Your task to perform on an android device: open app "Pluto TV - Live TV and Movies" (install if not already installed) Image 0: 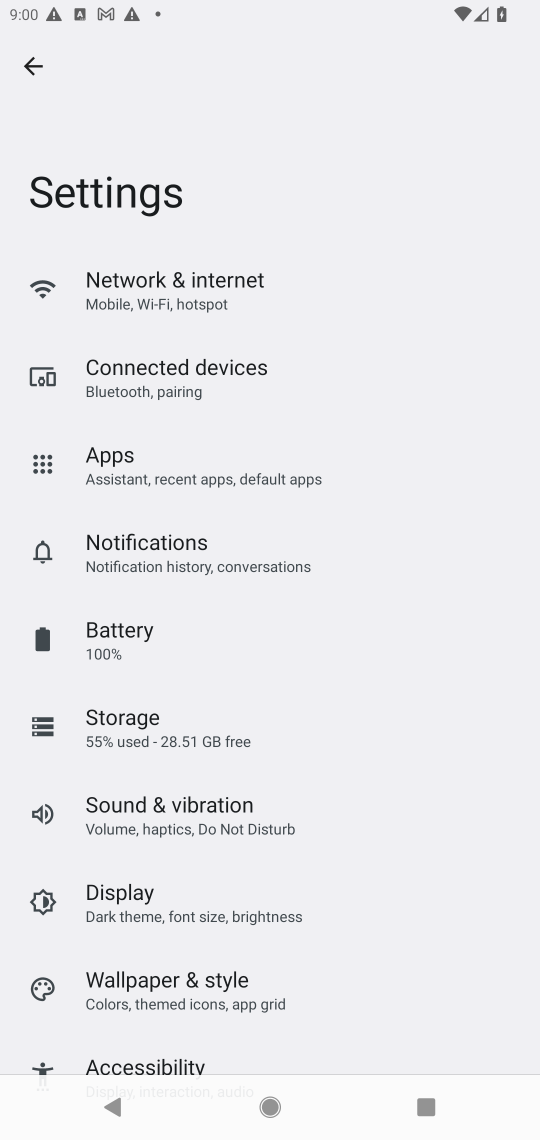
Step 0: press home button
Your task to perform on an android device: open app "Pluto TV - Live TV and Movies" (install if not already installed) Image 1: 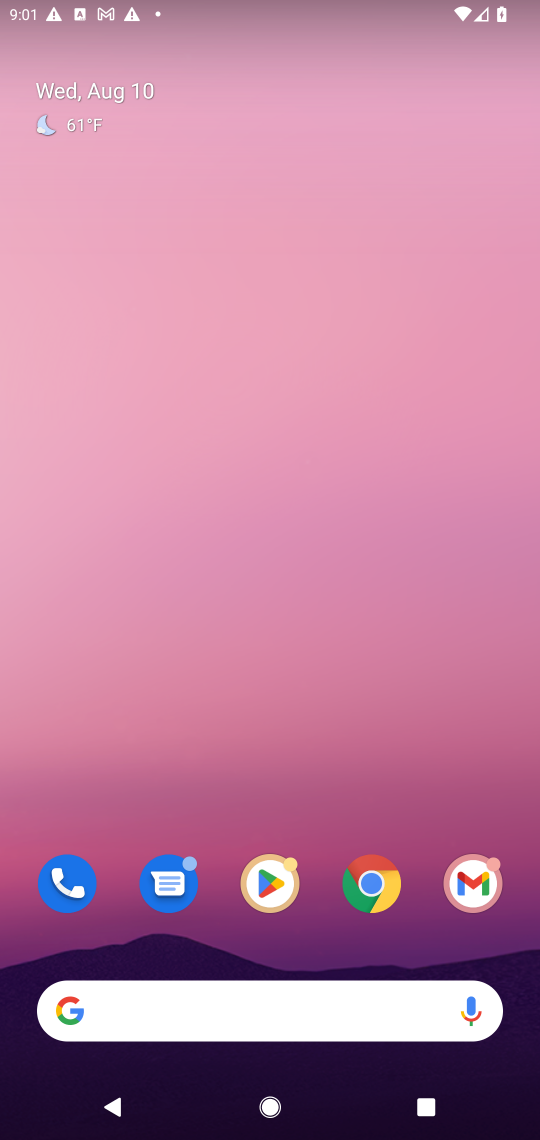
Step 1: click (257, 887)
Your task to perform on an android device: open app "Pluto TV - Live TV and Movies" (install if not already installed) Image 2: 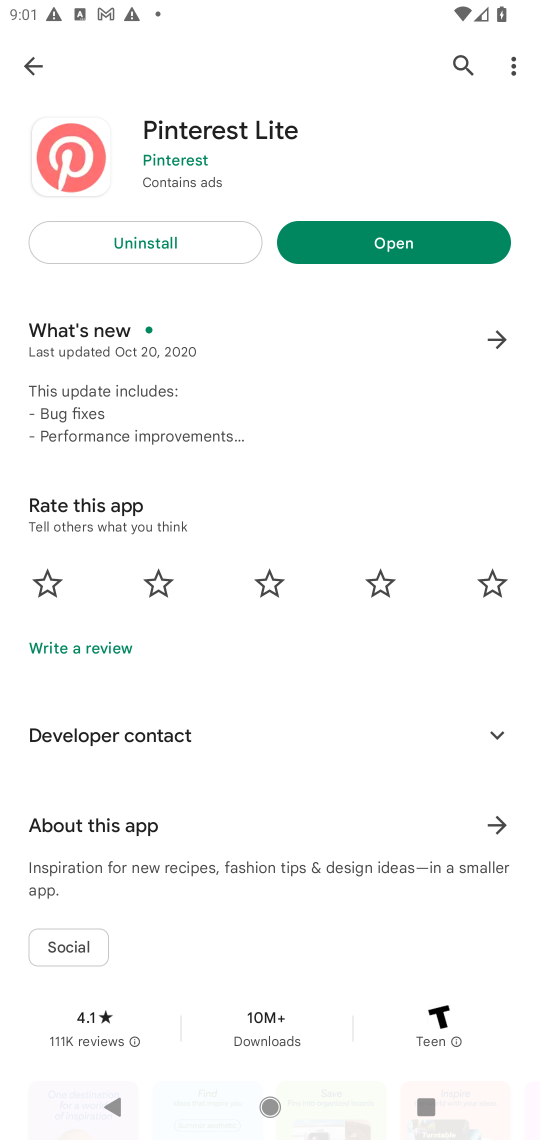
Step 2: click (451, 62)
Your task to perform on an android device: open app "Pluto TV - Live TV and Movies" (install if not already installed) Image 3: 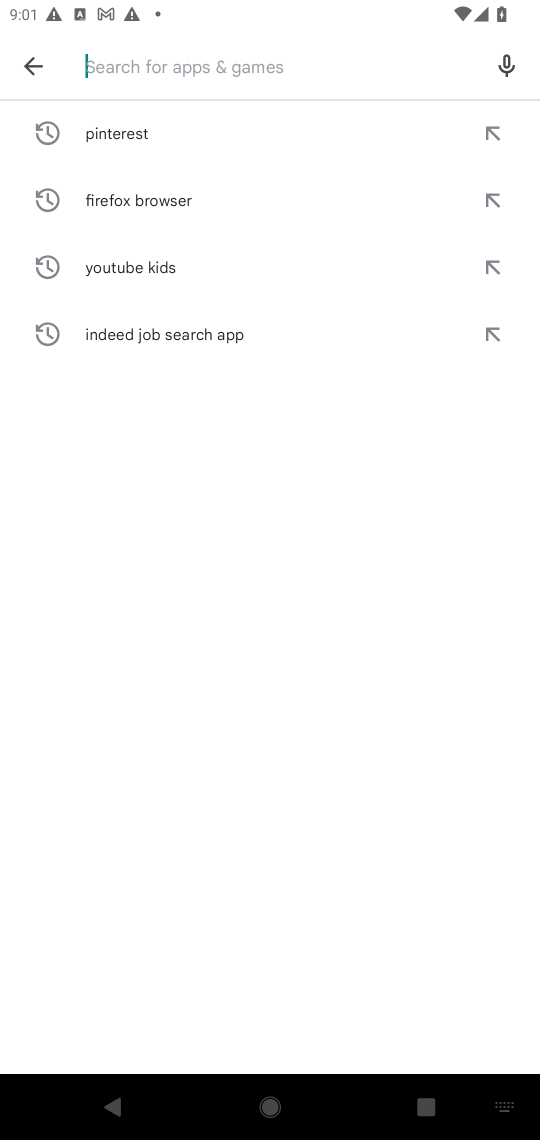
Step 3: type "Pluto TV - Live TV and Movies"
Your task to perform on an android device: open app "Pluto TV - Live TV and Movies" (install if not already installed) Image 4: 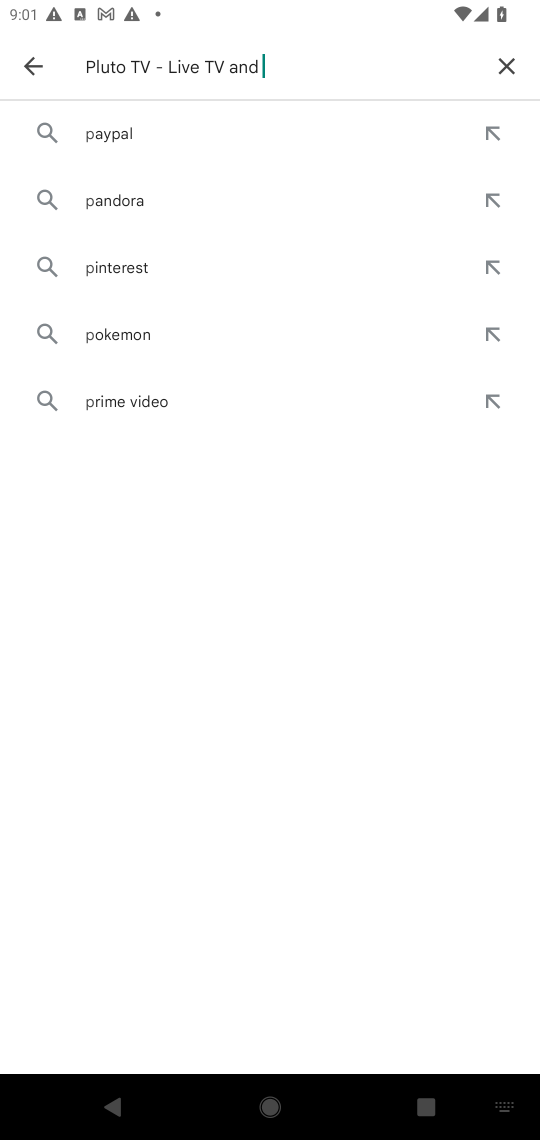
Step 4: type ""
Your task to perform on an android device: open app "Pluto TV - Live TV and Movies" (install if not already installed) Image 5: 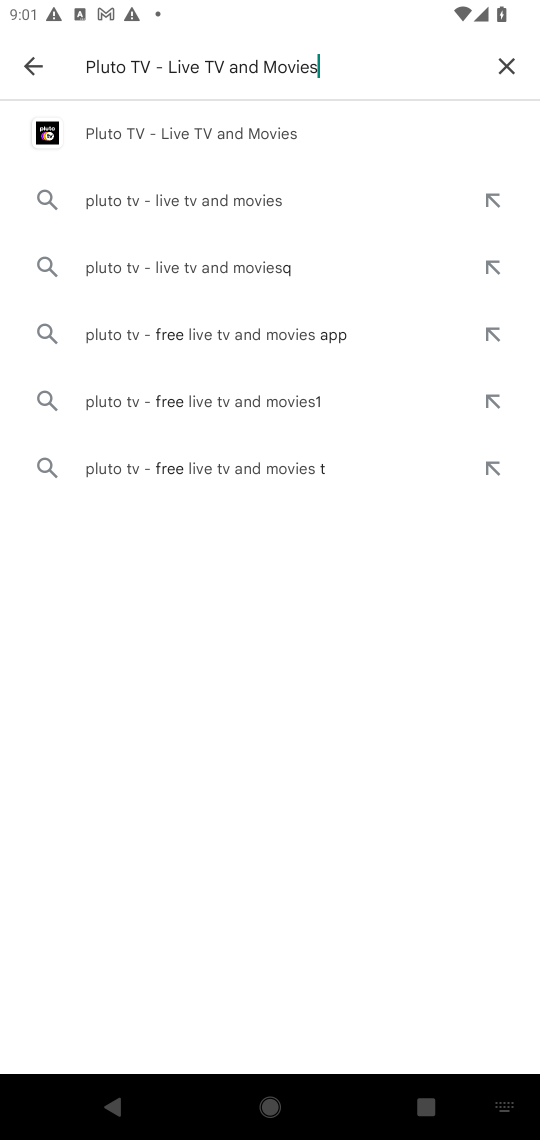
Step 5: click (138, 129)
Your task to perform on an android device: open app "Pluto TV - Live TV and Movies" (install if not already installed) Image 6: 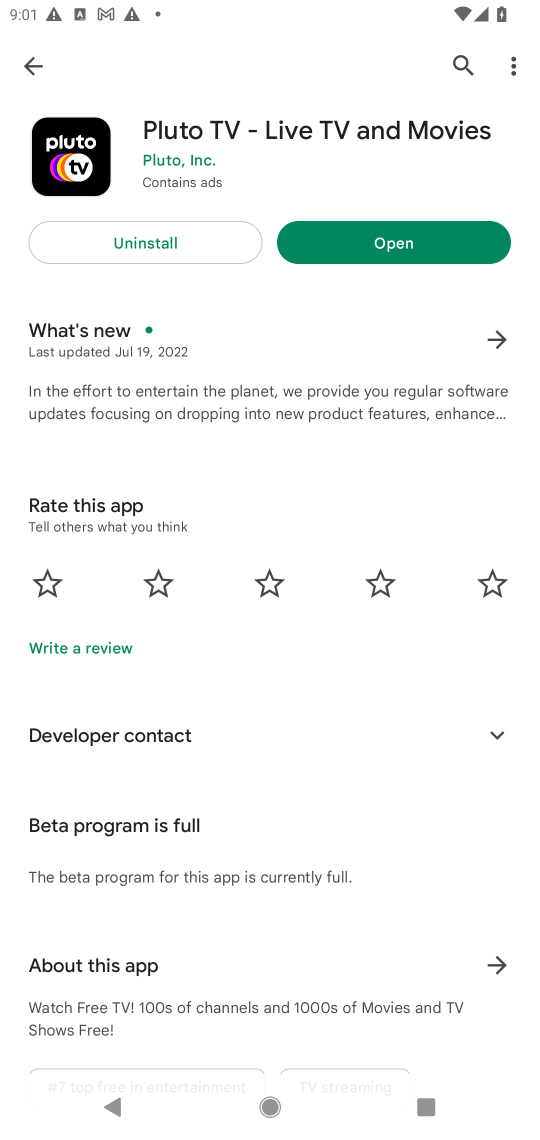
Step 6: click (393, 246)
Your task to perform on an android device: open app "Pluto TV - Live TV and Movies" (install if not already installed) Image 7: 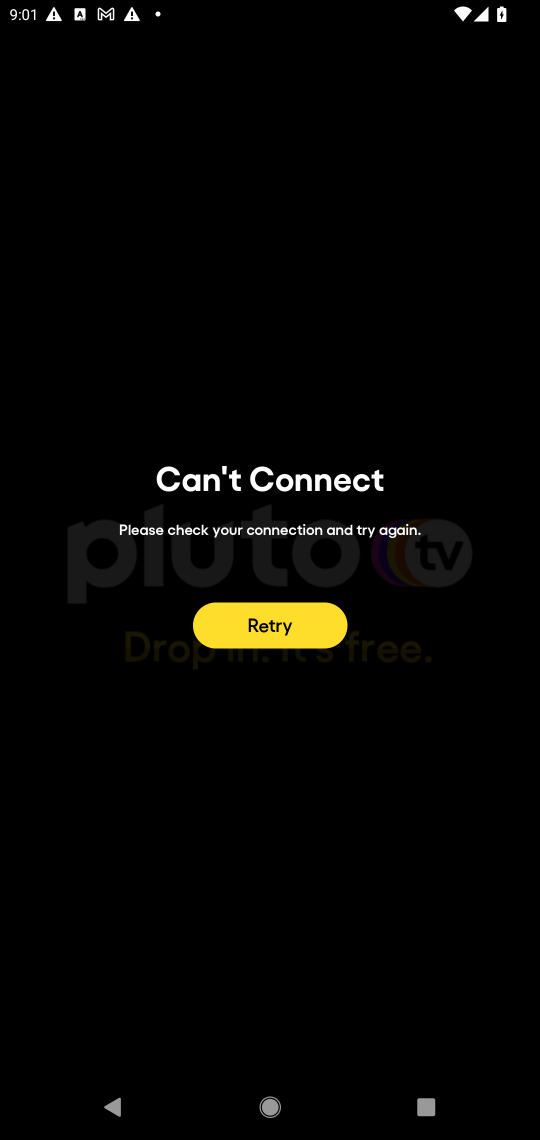
Step 7: task complete